Your task to perform on an android device: Search for "bose quietcomfort 35" on target.com, select the first entry, and add it to the cart. Image 0: 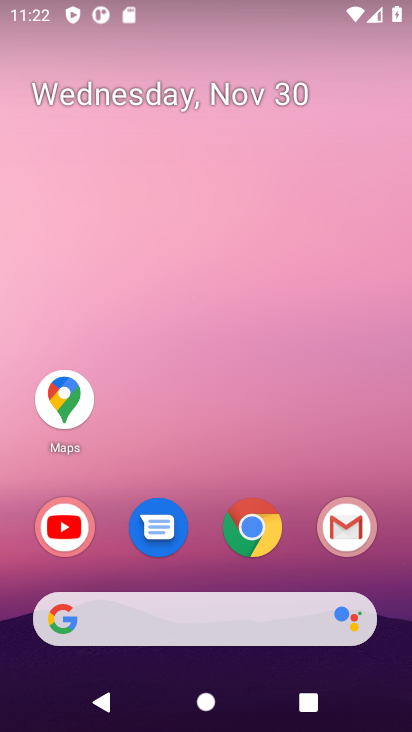
Step 0: click (252, 535)
Your task to perform on an android device: Search for "bose quietcomfort 35" on target.com, select the first entry, and add it to the cart. Image 1: 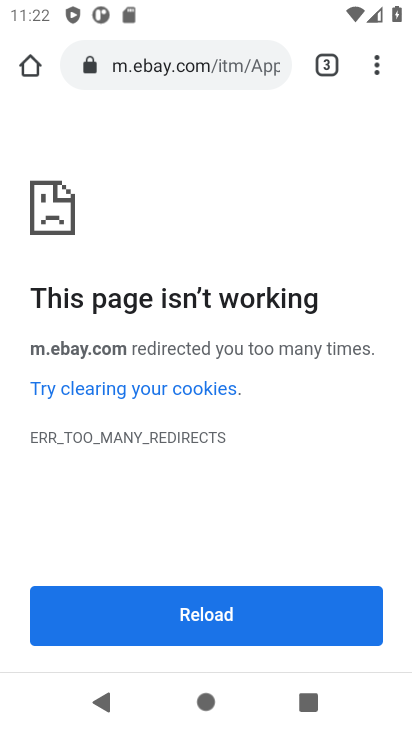
Step 1: click (179, 69)
Your task to perform on an android device: Search for "bose quietcomfort 35" on target.com, select the first entry, and add it to the cart. Image 2: 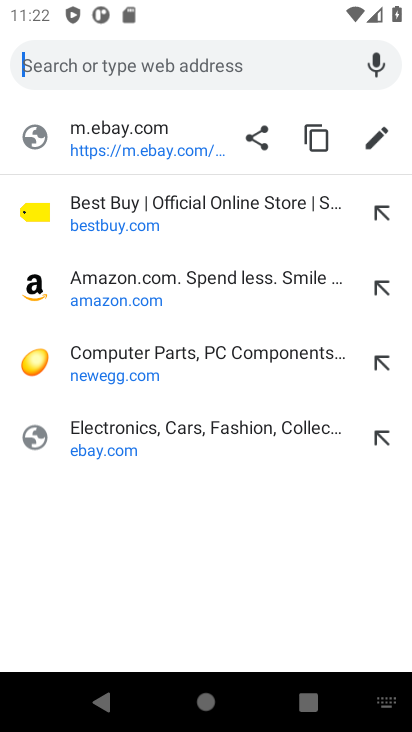
Step 2: type "target.com"
Your task to perform on an android device: Search for "bose quietcomfort 35" on target.com, select the first entry, and add it to the cart. Image 3: 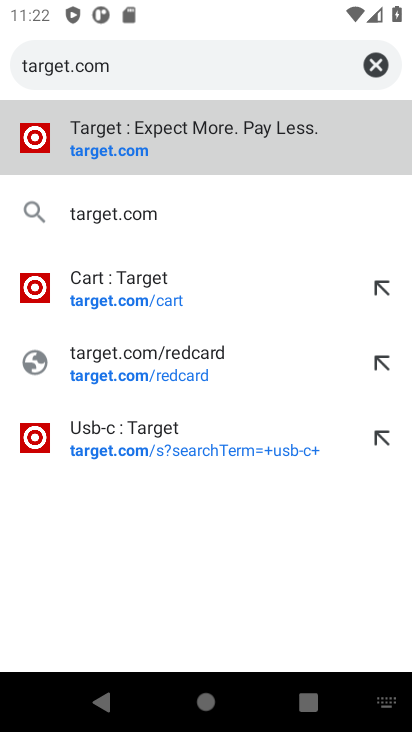
Step 3: click (126, 157)
Your task to perform on an android device: Search for "bose quietcomfort 35" on target.com, select the first entry, and add it to the cart. Image 4: 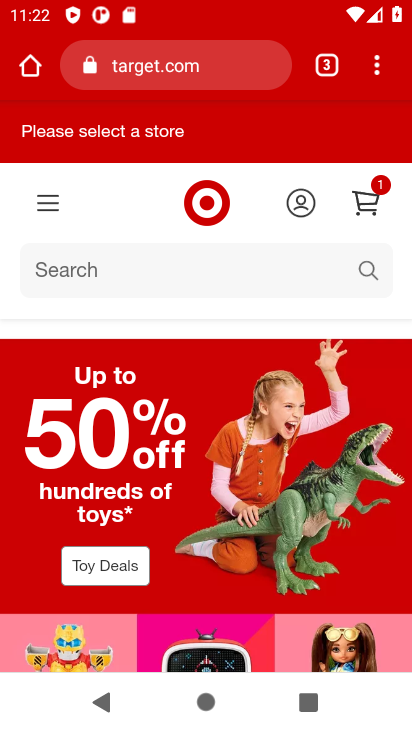
Step 4: click (42, 269)
Your task to perform on an android device: Search for "bose quietcomfort 35" on target.com, select the first entry, and add it to the cart. Image 5: 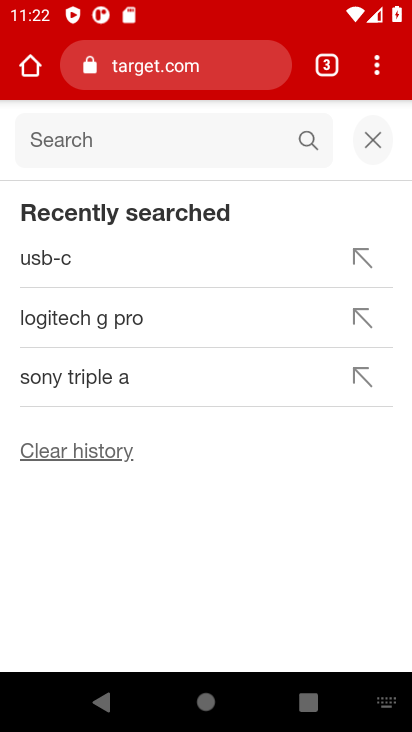
Step 5: type "bose quietcomfort 35"
Your task to perform on an android device: Search for "bose quietcomfort 35" on target.com, select the first entry, and add it to the cart. Image 6: 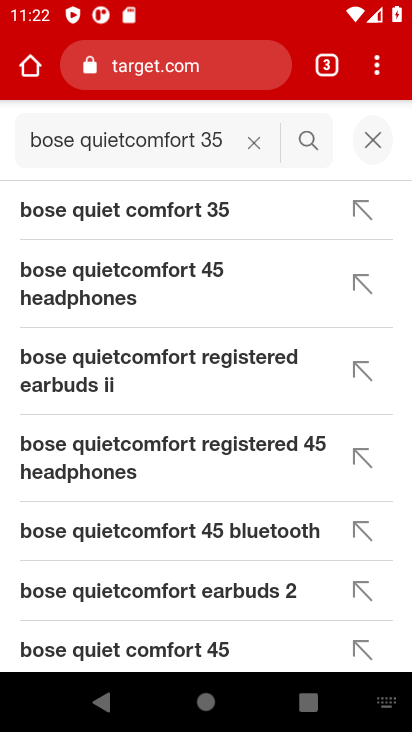
Step 6: click (149, 212)
Your task to perform on an android device: Search for "bose quietcomfort 35" on target.com, select the first entry, and add it to the cart. Image 7: 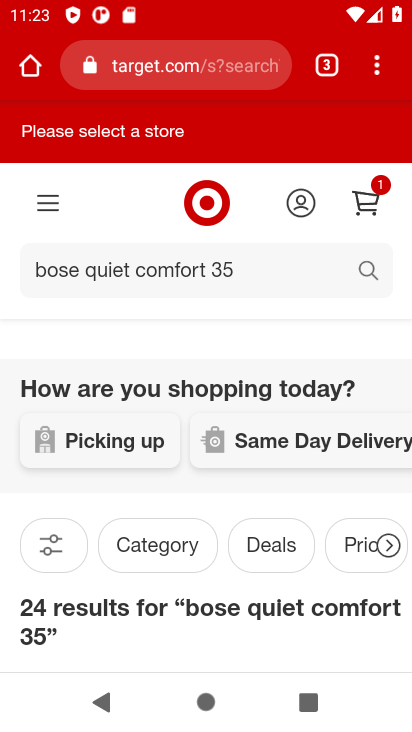
Step 7: task complete